Your task to perform on an android device: check the backup settings in the google photos Image 0: 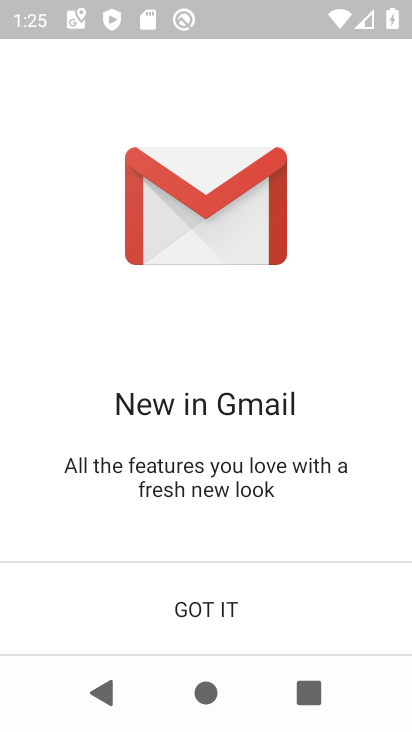
Step 0: press back button
Your task to perform on an android device: check the backup settings in the google photos Image 1: 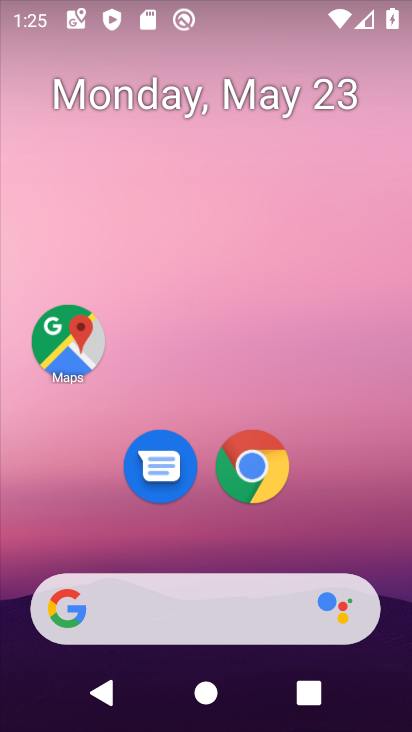
Step 1: drag from (321, 535) to (409, 55)
Your task to perform on an android device: check the backup settings in the google photos Image 2: 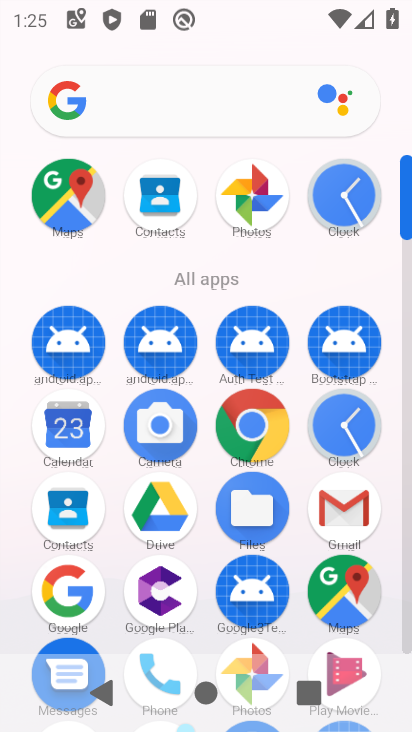
Step 2: click (253, 194)
Your task to perform on an android device: check the backup settings in the google photos Image 3: 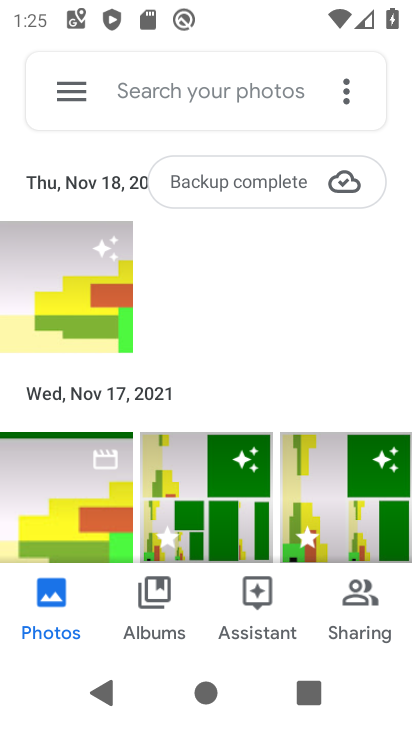
Step 3: click (80, 91)
Your task to perform on an android device: check the backup settings in the google photos Image 4: 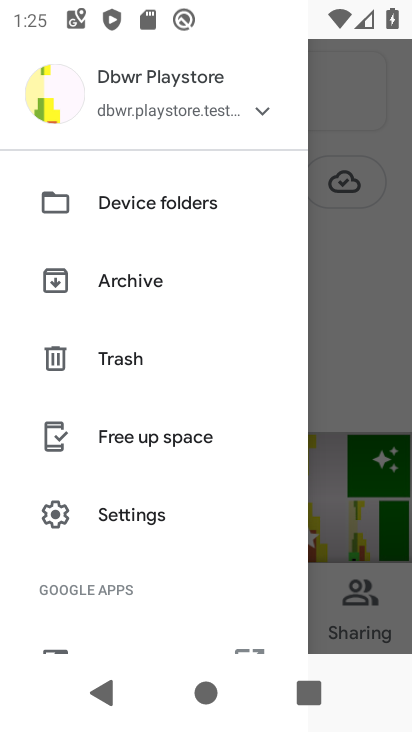
Step 4: click (130, 507)
Your task to perform on an android device: check the backup settings in the google photos Image 5: 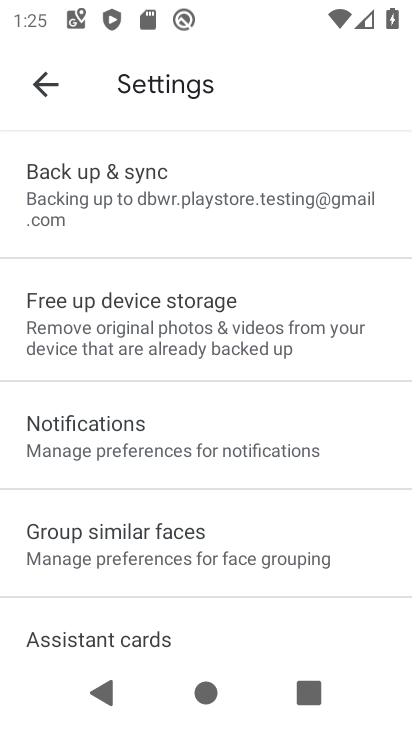
Step 5: click (140, 210)
Your task to perform on an android device: check the backup settings in the google photos Image 6: 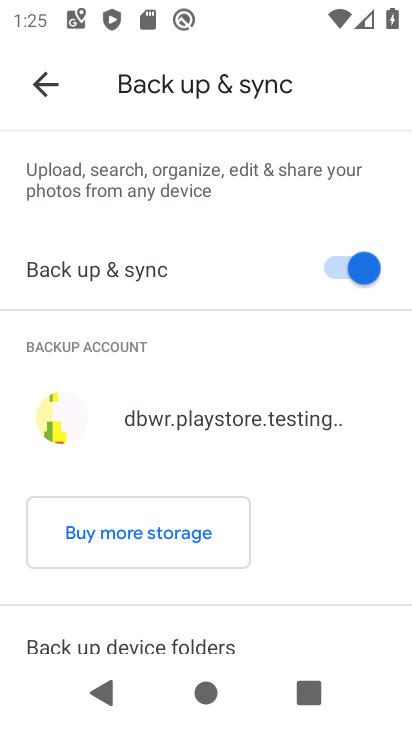
Step 6: task complete